Your task to perform on an android device: empty trash in the gmail app Image 0: 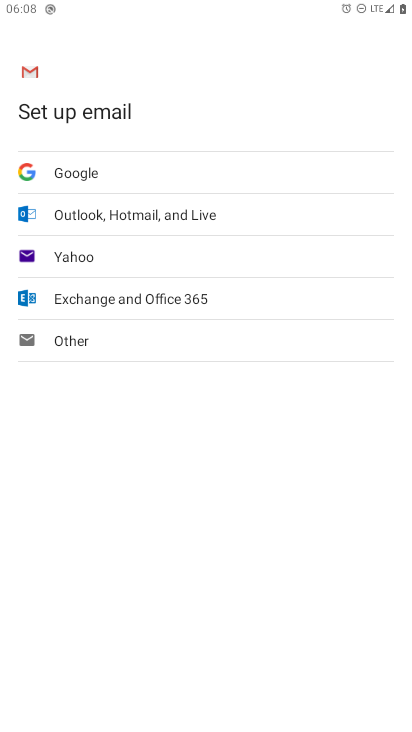
Step 0: press home button
Your task to perform on an android device: empty trash in the gmail app Image 1: 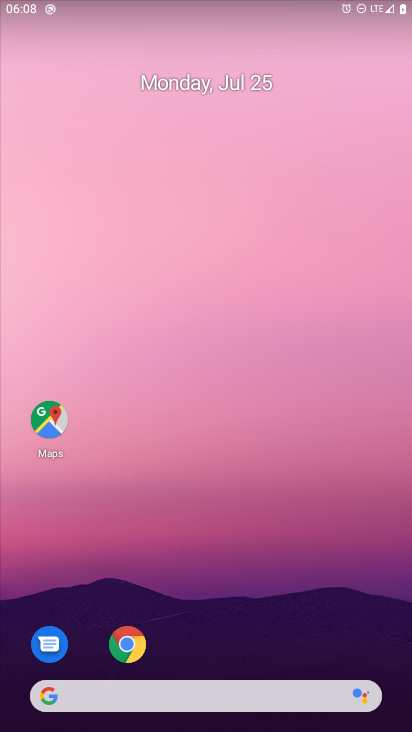
Step 1: drag from (227, 644) to (172, 98)
Your task to perform on an android device: empty trash in the gmail app Image 2: 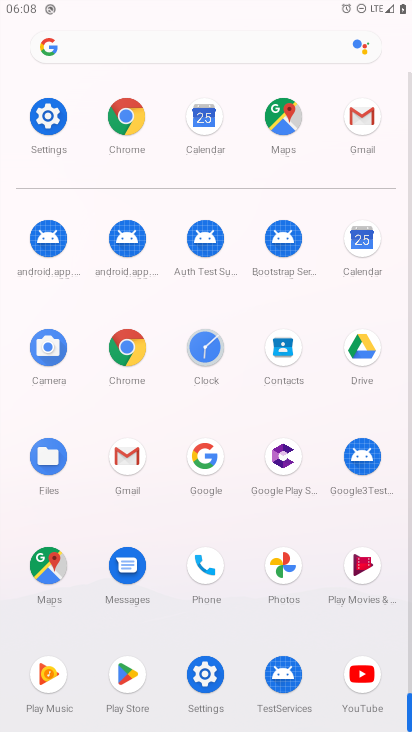
Step 2: click (119, 468)
Your task to perform on an android device: empty trash in the gmail app Image 3: 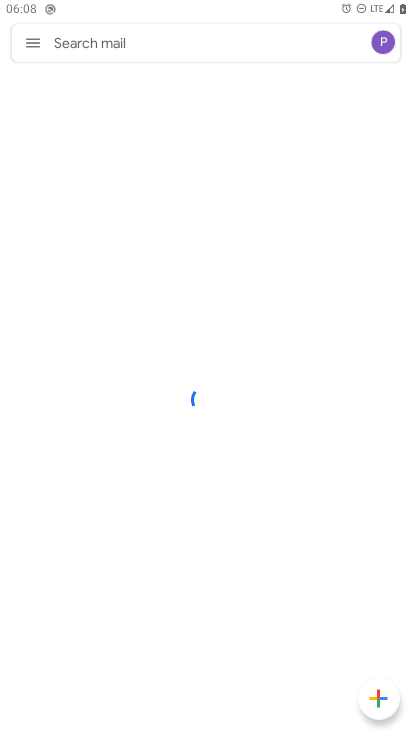
Step 3: click (38, 42)
Your task to perform on an android device: empty trash in the gmail app Image 4: 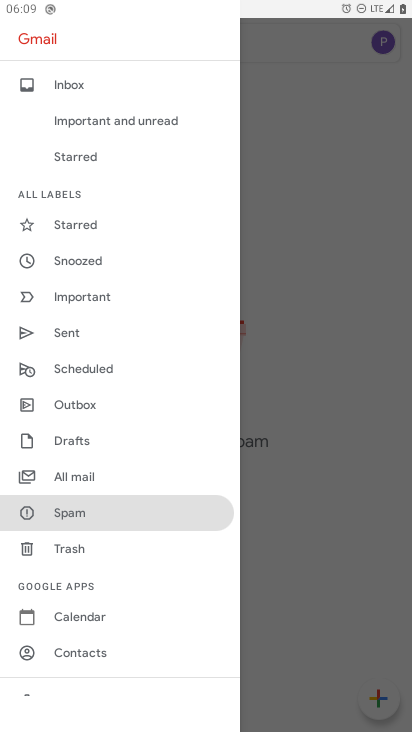
Step 4: click (86, 549)
Your task to perform on an android device: empty trash in the gmail app Image 5: 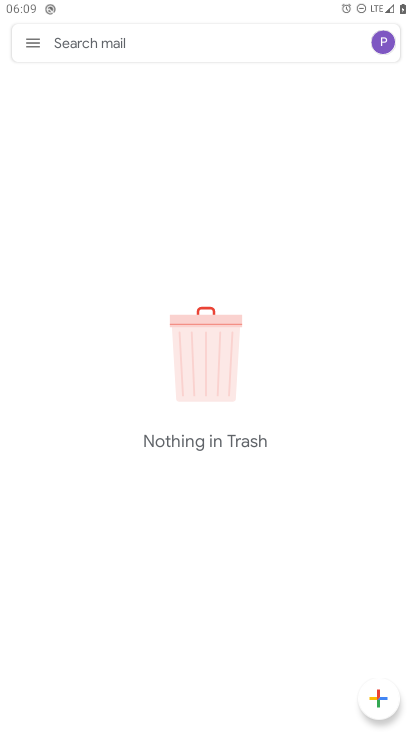
Step 5: task complete